Your task to perform on an android device: Open ESPN.com Image 0: 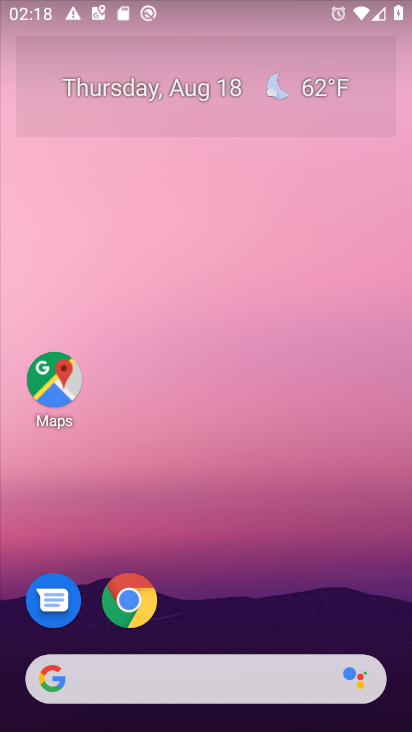
Step 0: press home button
Your task to perform on an android device: Open ESPN.com Image 1: 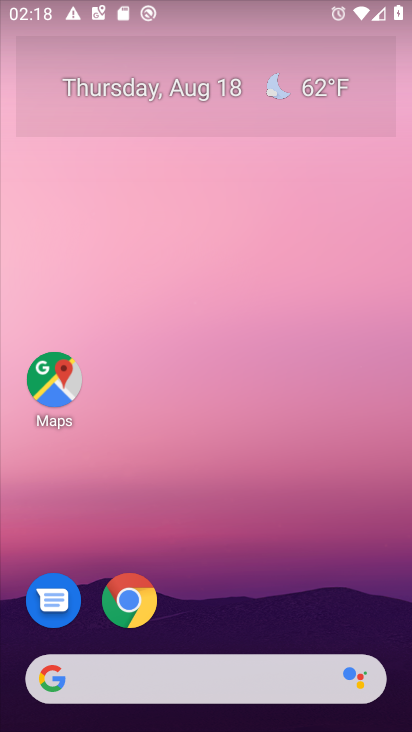
Step 1: click (49, 687)
Your task to perform on an android device: Open ESPN.com Image 2: 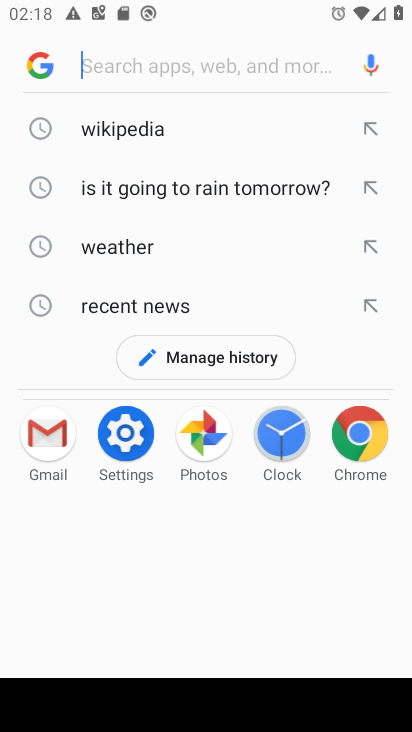
Step 2: type " ESPN.com"
Your task to perform on an android device: Open ESPN.com Image 3: 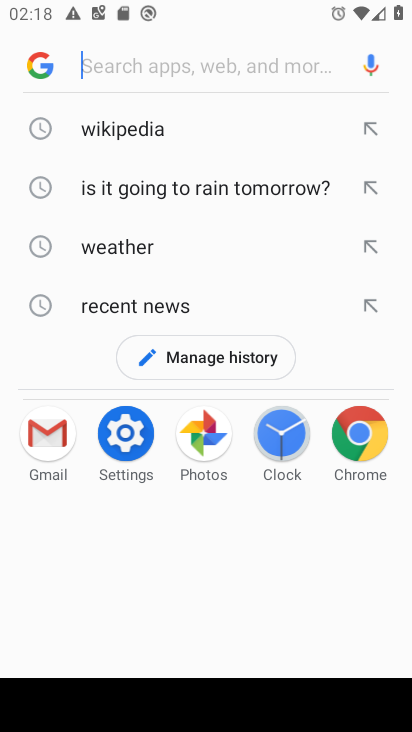
Step 3: click (111, 57)
Your task to perform on an android device: Open ESPN.com Image 4: 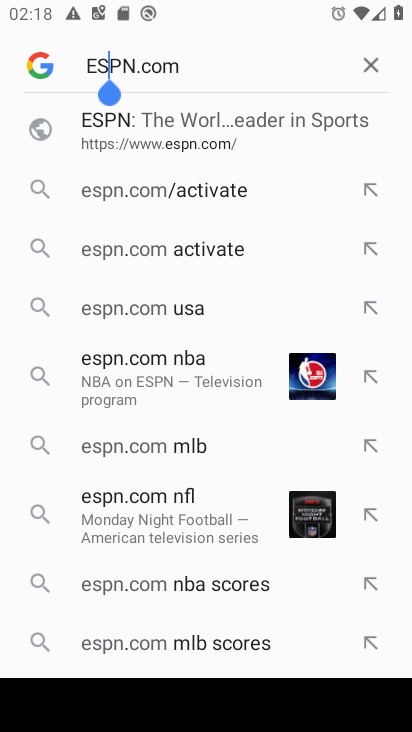
Step 4: press enter
Your task to perform on an android device: Open ESPN.com Image 5: 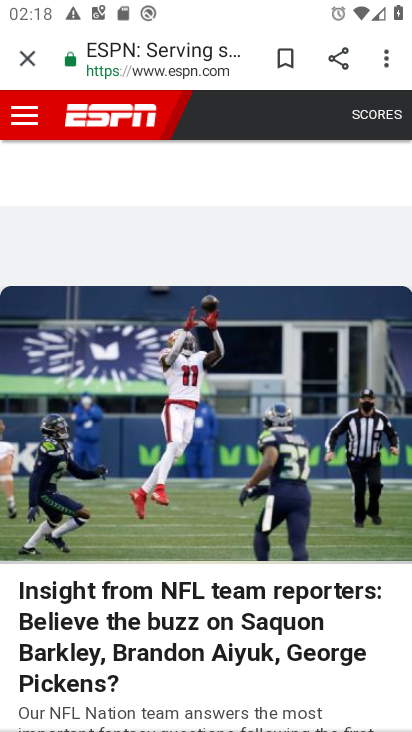
Step 5: task complete